Your task to perform on an android device: open app "NewsBreak: Local News & Alerts" (install if not already installed) Image 0: 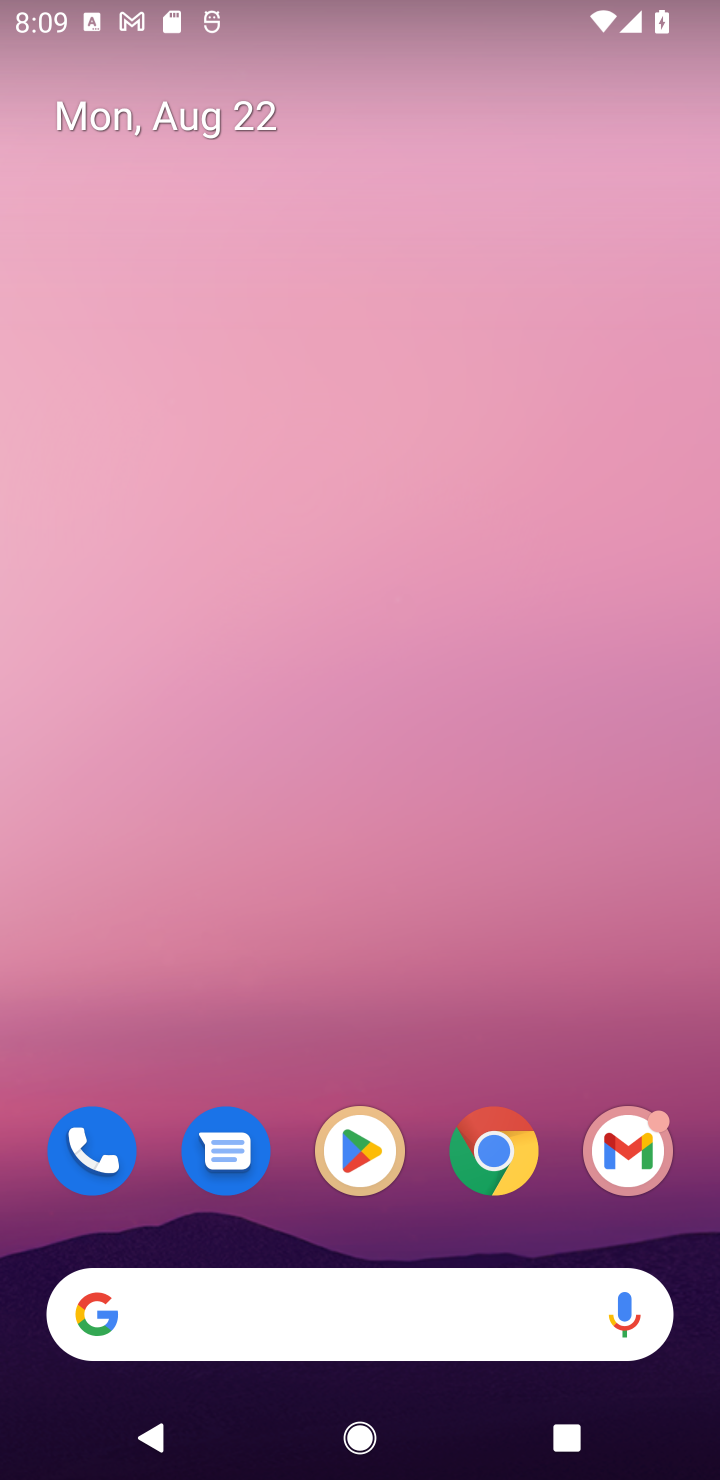
Step 0: press home button
Your task to perform on an android device: open app "NewsBreak: Local News & Alerts" (install if not already installed) Image 1: 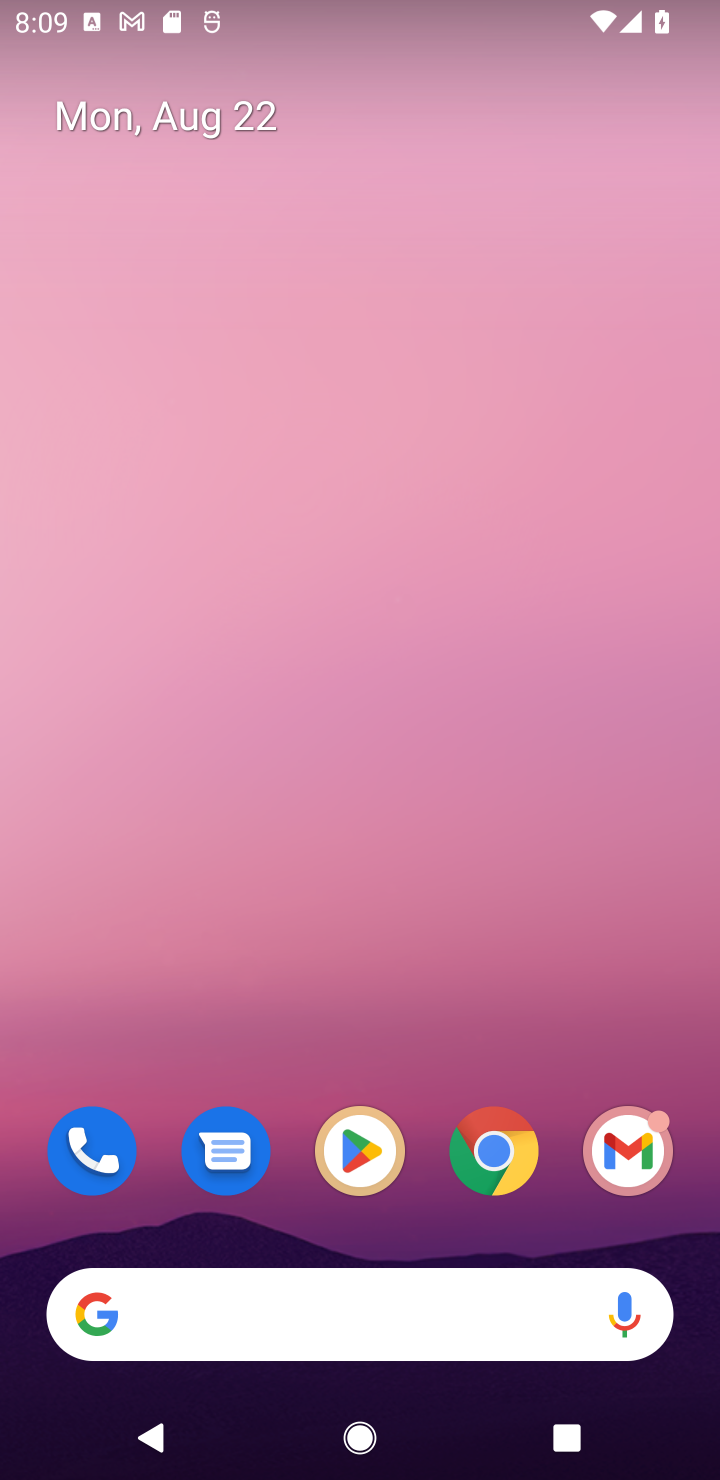
Step 1: click (338, 1156)
Your task to perform on an android device: open app "NewsBreak: Local News & Alerts" (install if not already installed) Image 2: 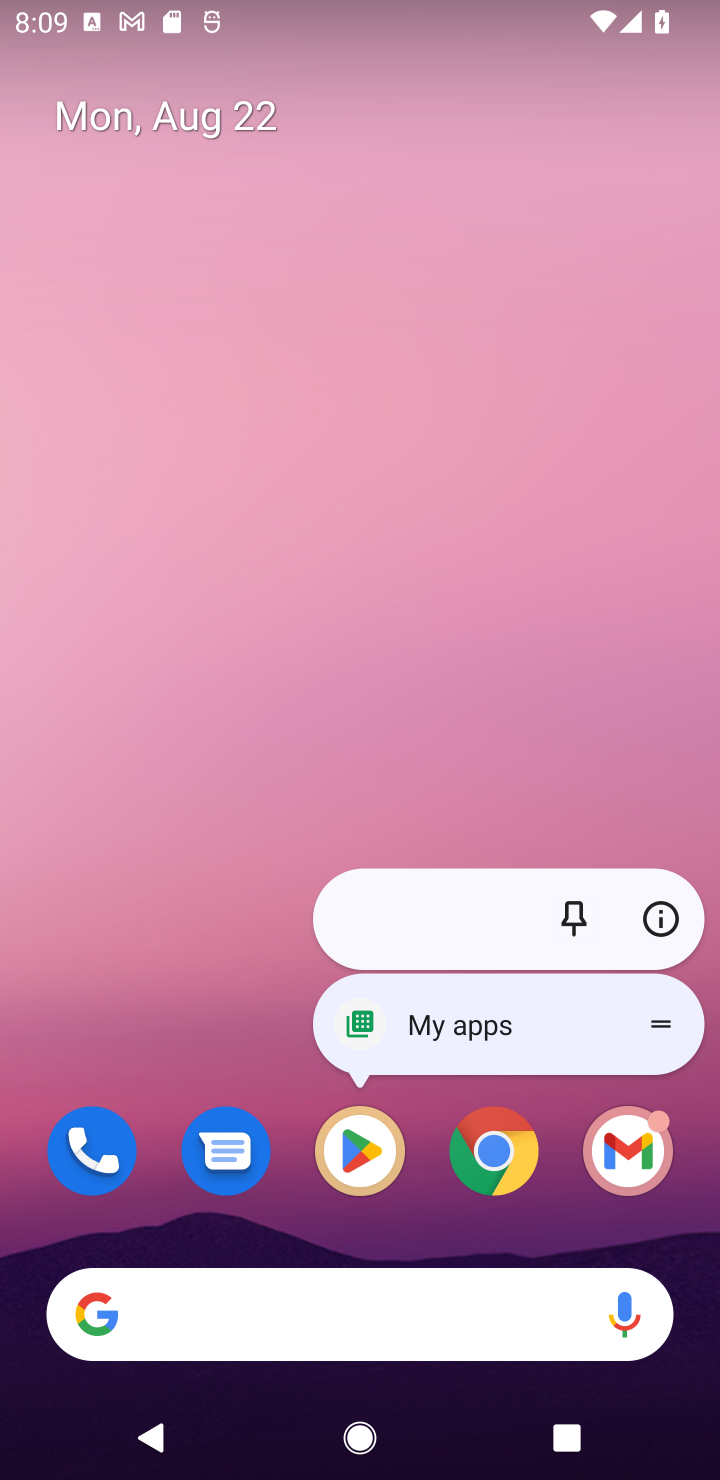
Step 2: click (338, 1161)
Your task to perform on an android device: open app "NewsBreak: Local News & Alerts" (install if not already installed) Image 3: 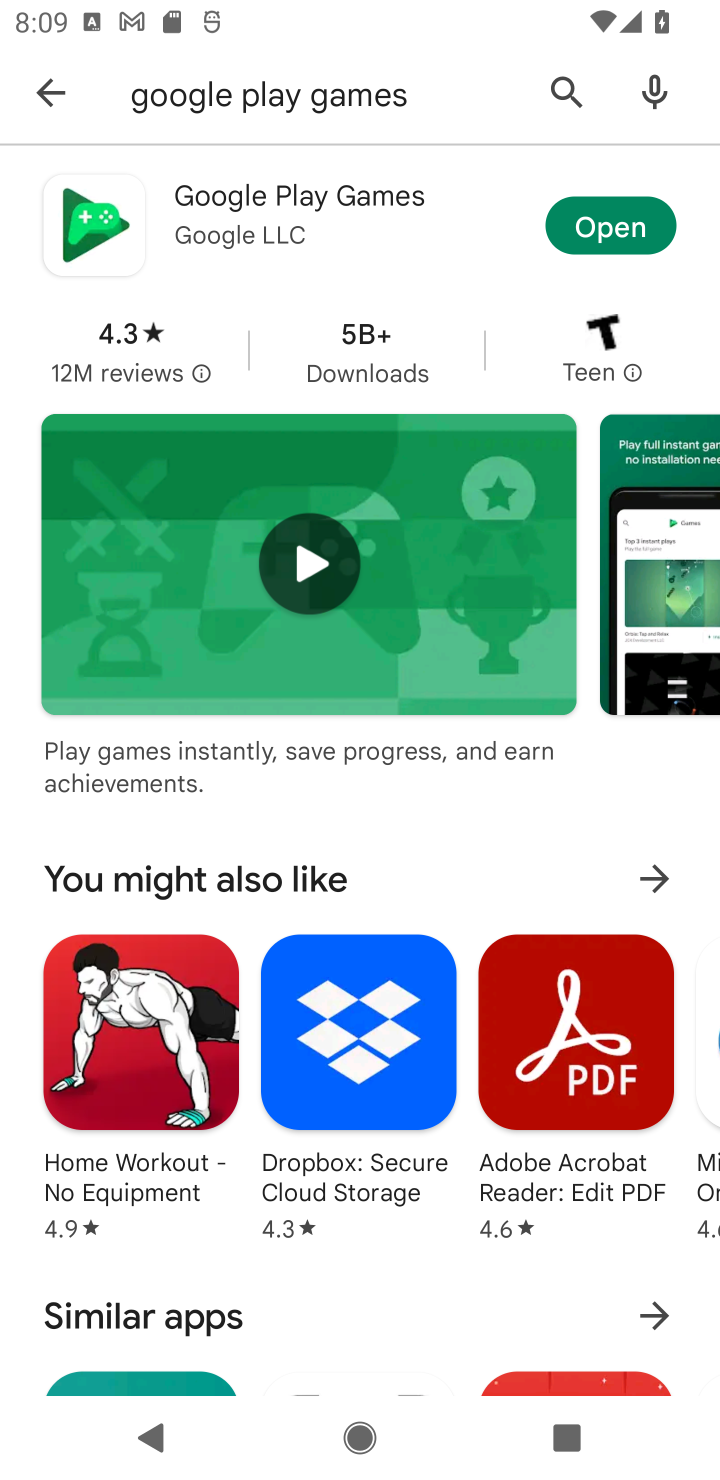
Step 3: click (552, 75)
Your task to perform on an android device: open app "NewsBreak: Local News & Alerts" (install if not already installed) Image 4: 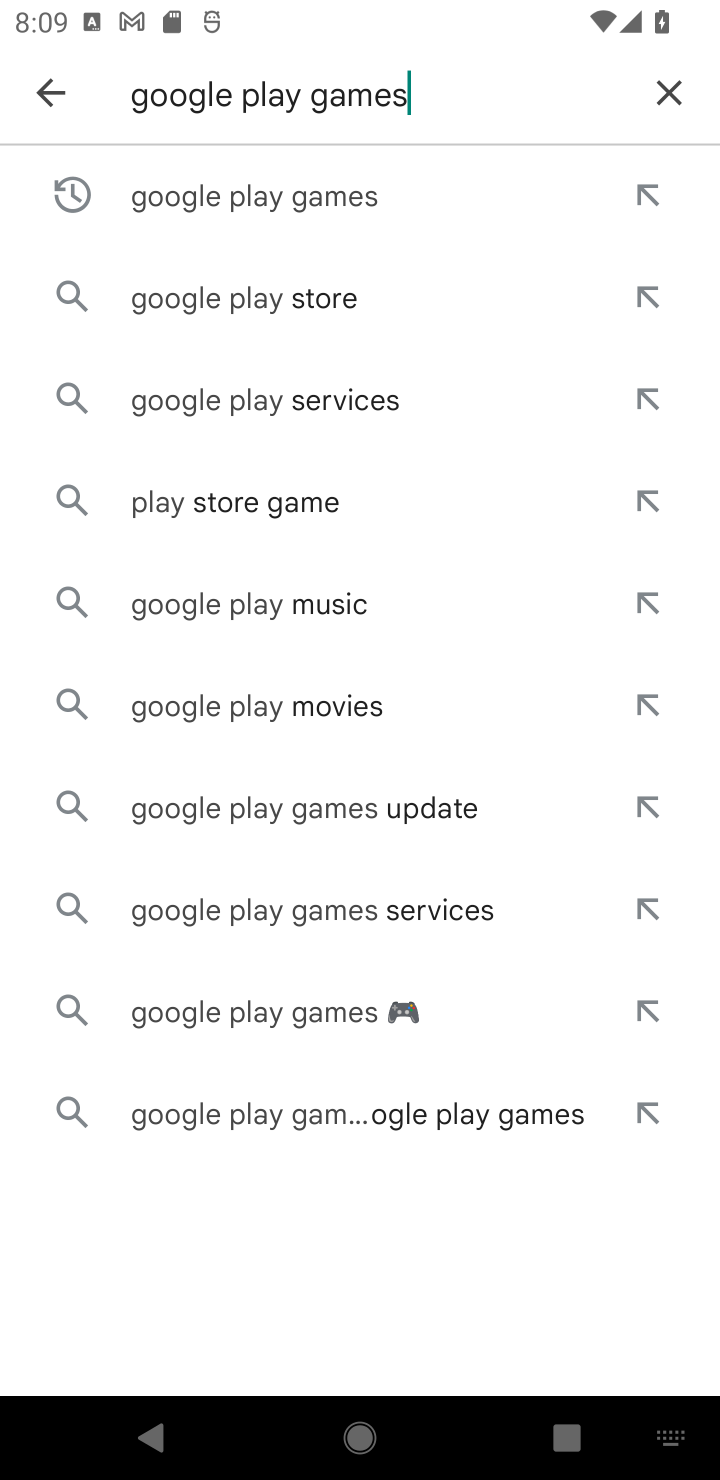
Step 4: click (672, 90)
Your task to perform on an android device: open app "NewsBreak: Local News & Alerts" (install if not already installed) Image 5: 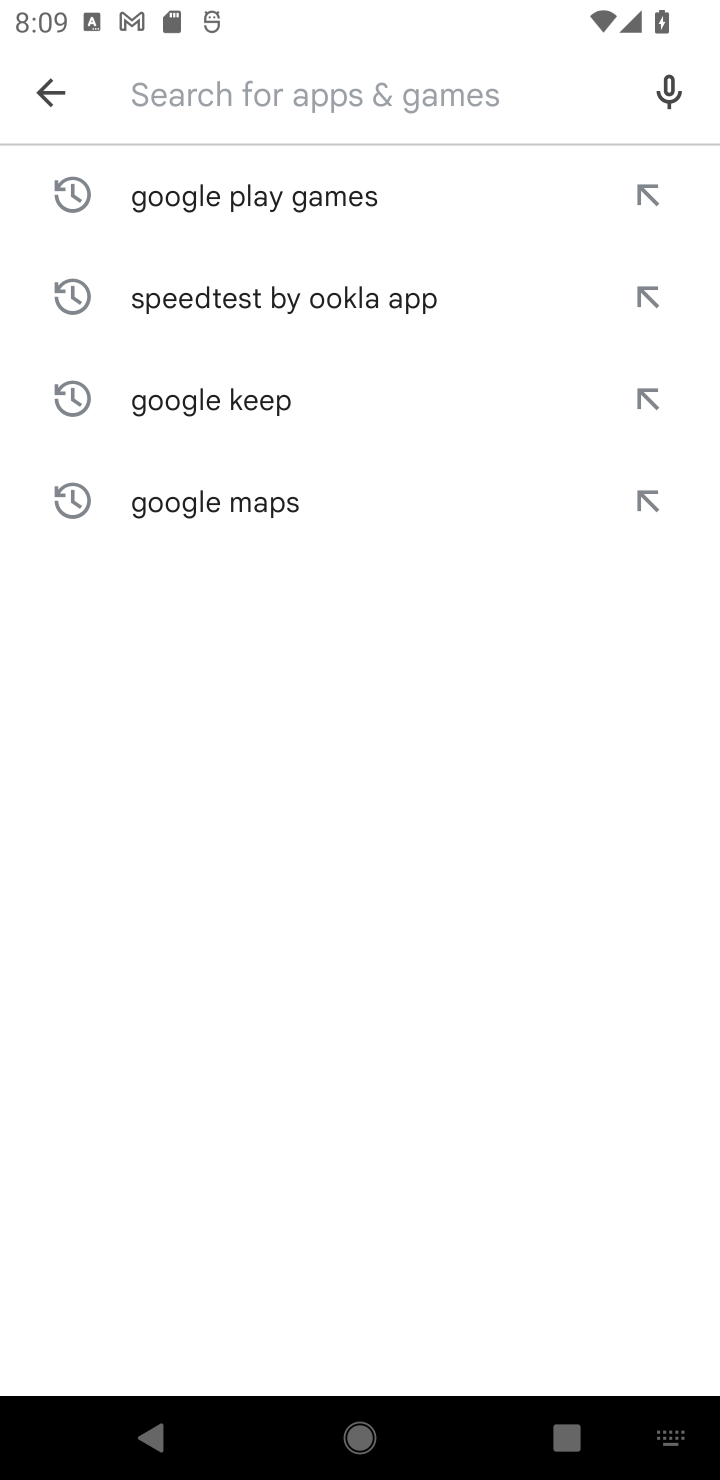
Step 5: type "NewsBreak: Local News & Alerts"
Your task to perform on an android device: open app "NewsBreak: Local News & Alerts" (install if not already installed) Image 6: 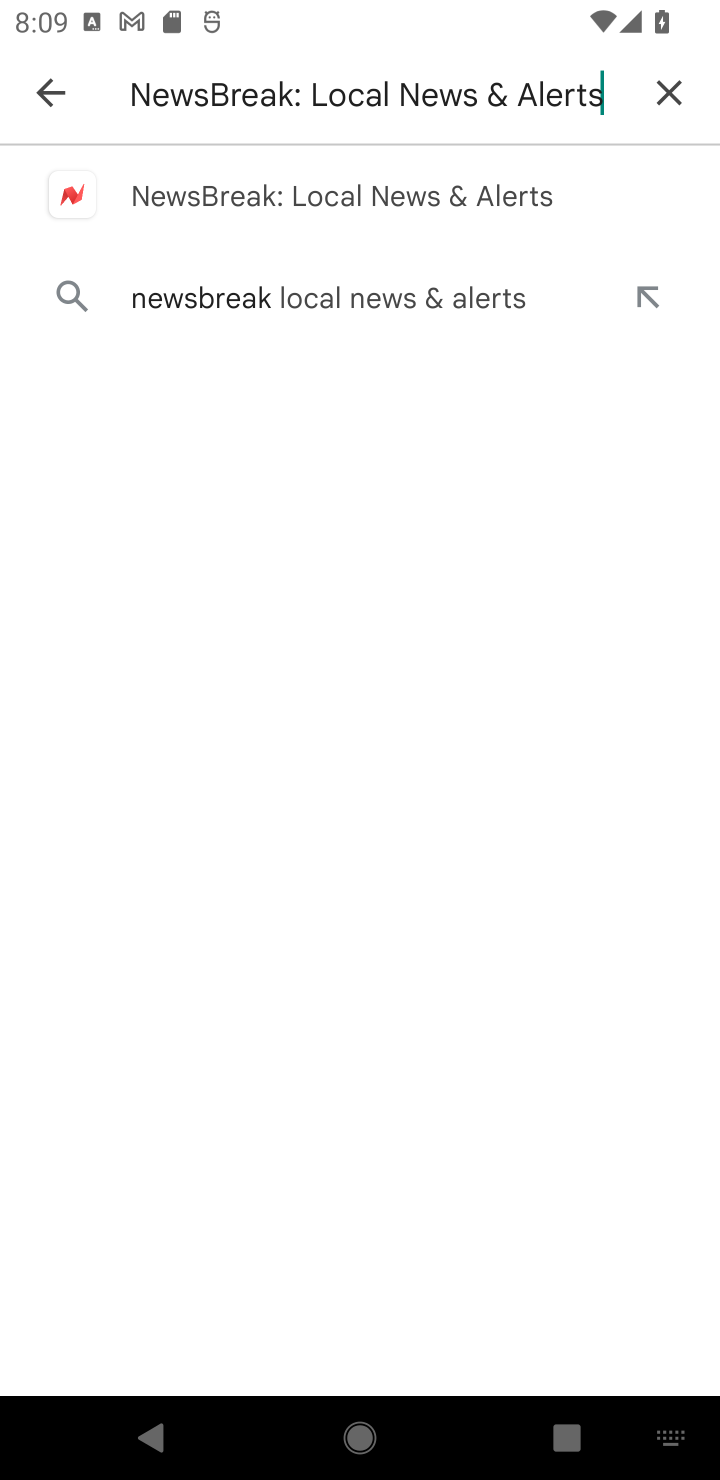
Step 6: click (210, 96)
Your task to perform on an android device: open app "NewsBreak: Local News & Alerts" (install if not already installed) Image 7: 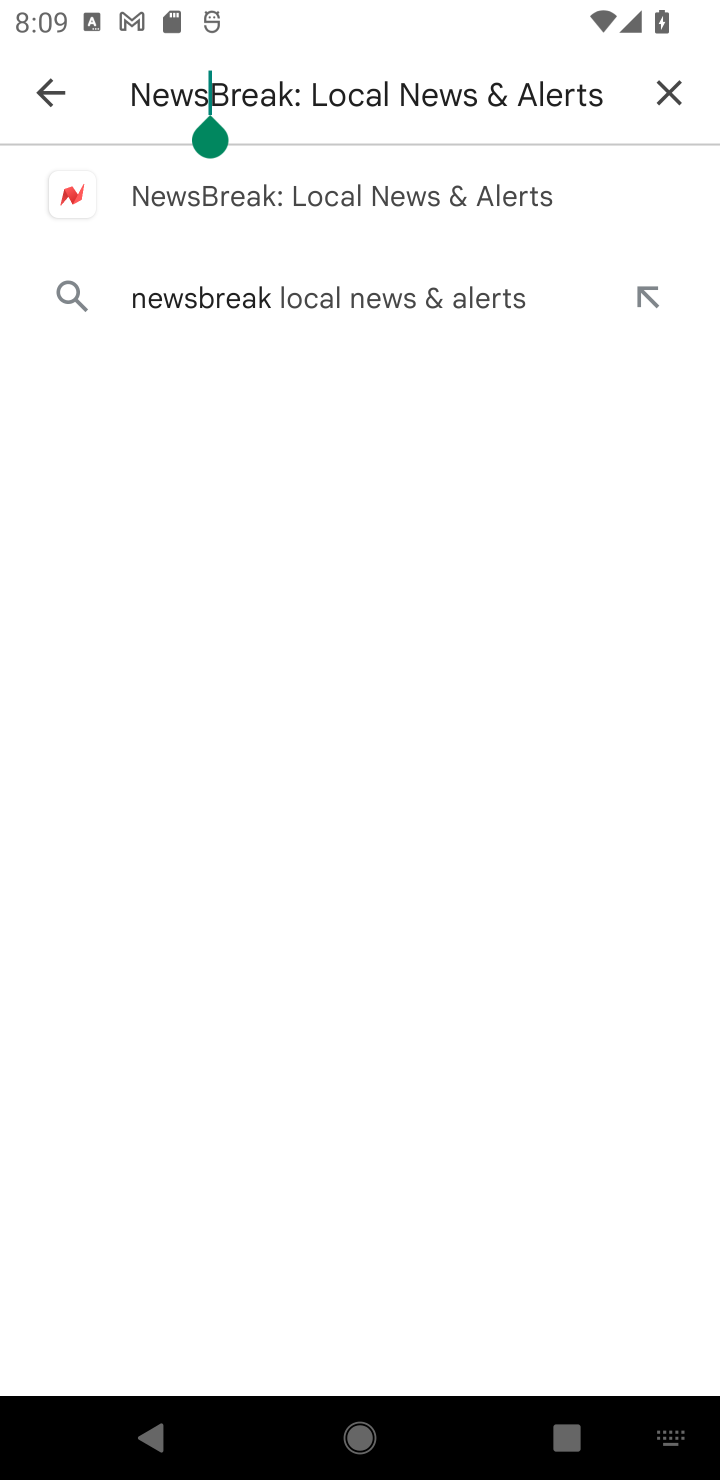
Step 7: click (431, 194)
Your task to perform on an android device: open app "NewsBreak: Local News & Alerts" (install if not already installed) Image 8: 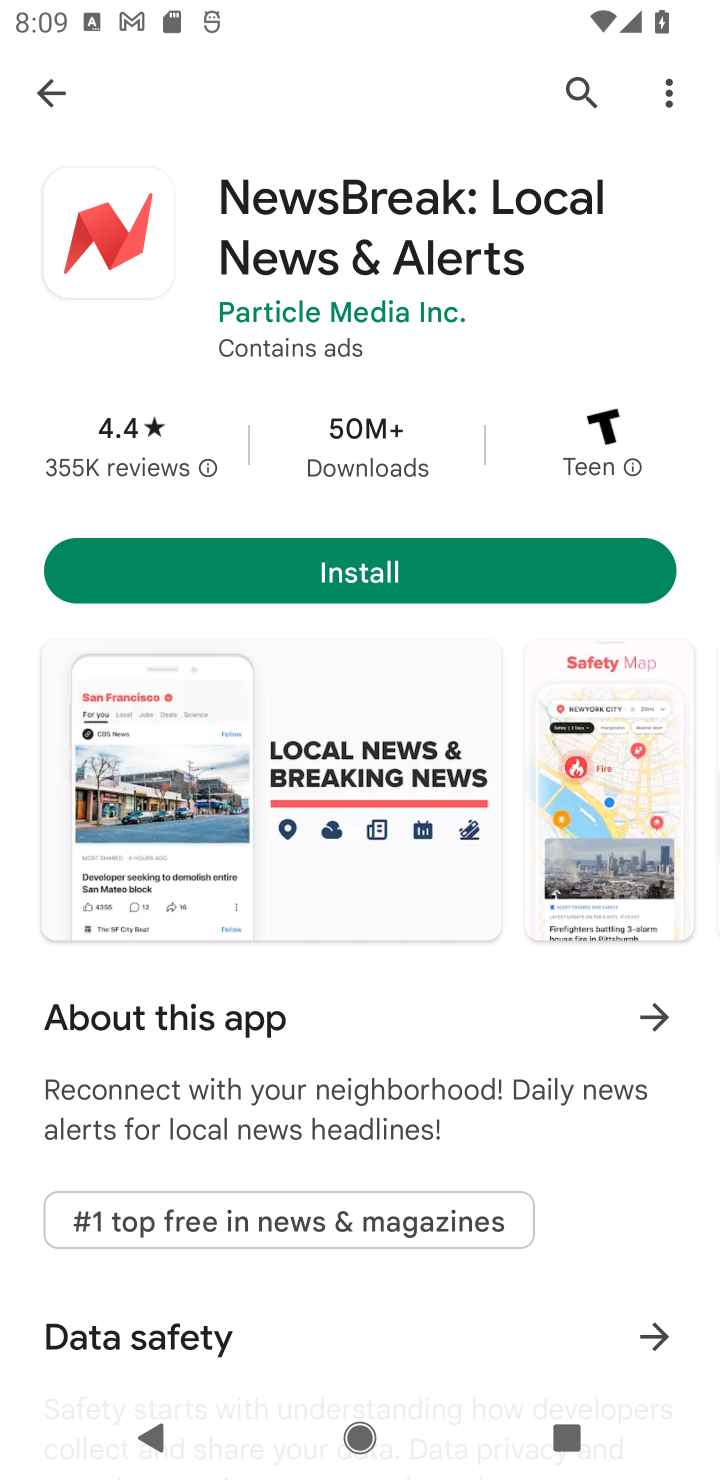
Step 8: click (368, 578)
Your task to perform on an android device: open app "NewsBreak: Local News & Alerts" (install if not already installed) Image 9: 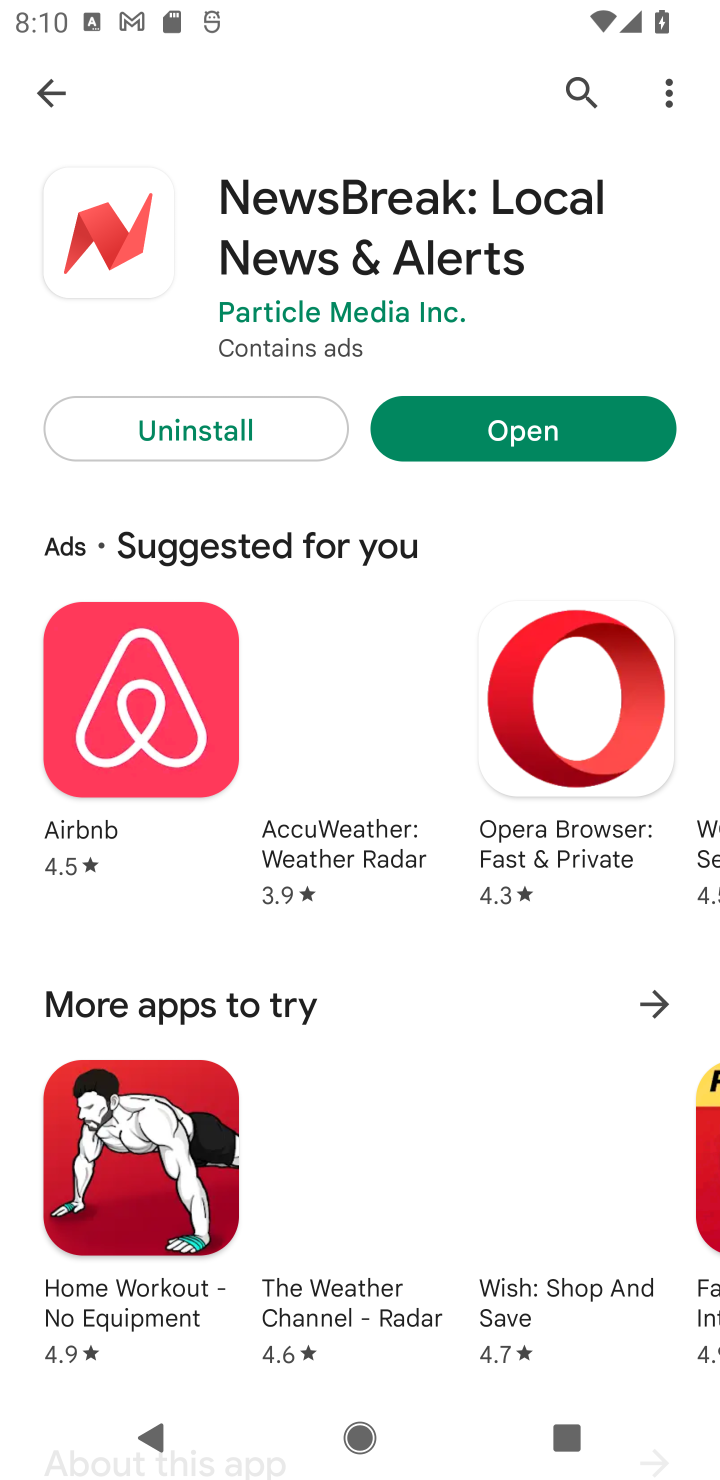
Step 9: click (637, 422)
Your task to perform on an android device: open app "NewsBreak: Local News & Alerts" (install if not already installed) Image 10: 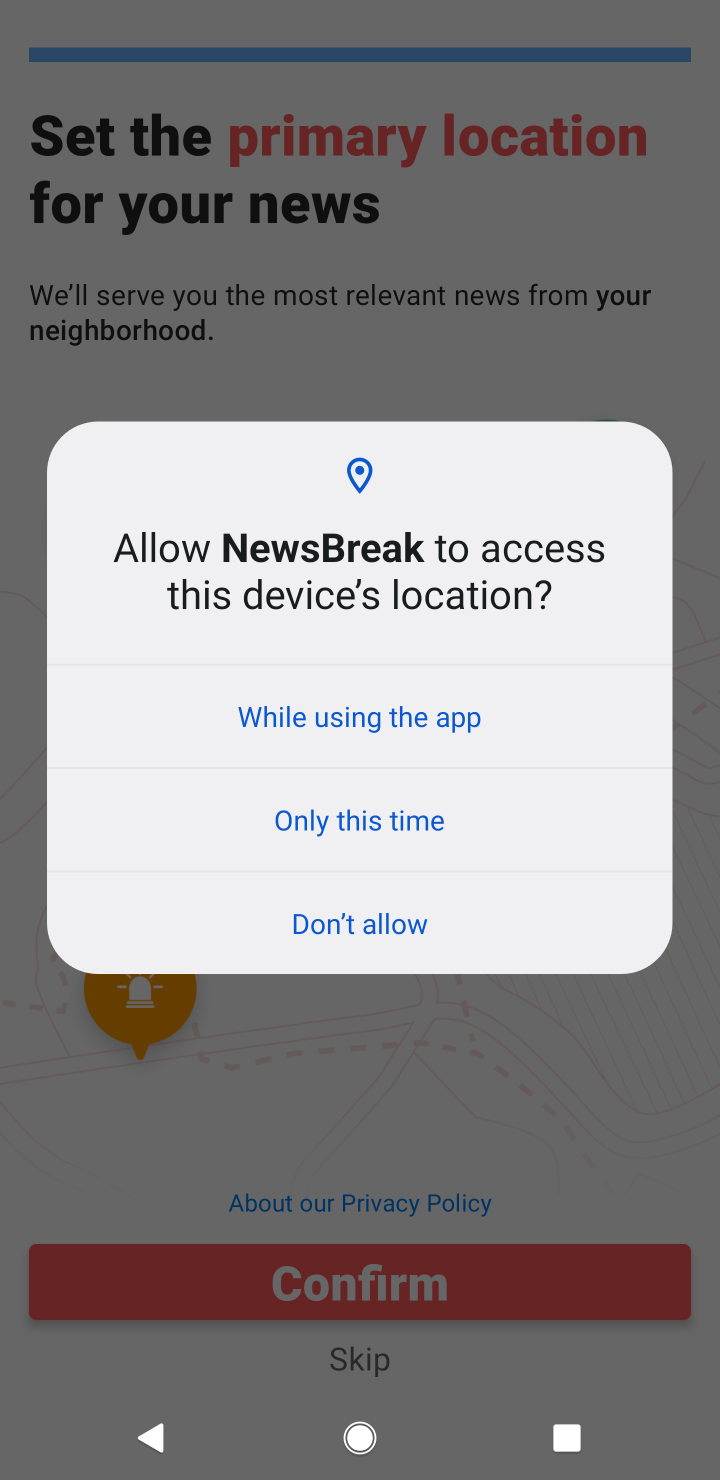
Step 10: task complete